Your task to perform on an android device: turn off priority inbox in the gmail app Image 0: 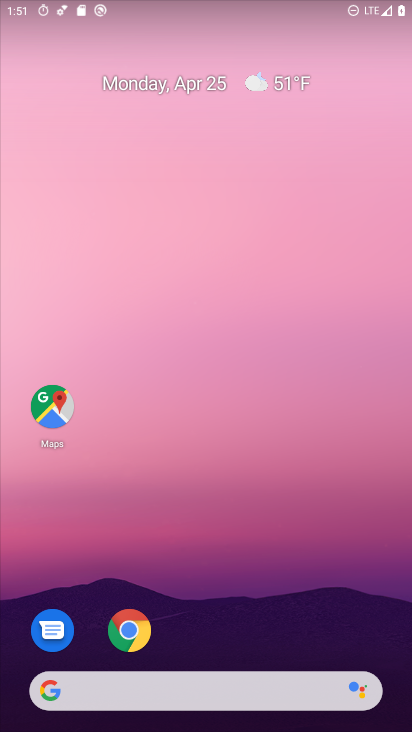
Step 0: drag from (187, 625) to (283, 57)
Your task to perform on an android device: turn off priority inbox in the gmail app Image 1: 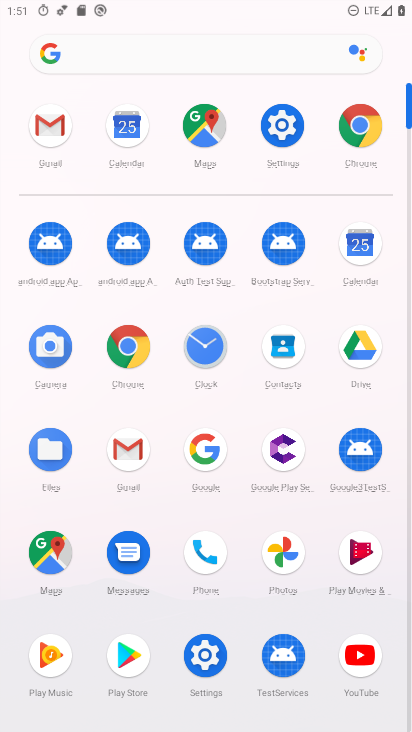
Step 1: drag from (239, 660) to (250, 307)
Your task to perform on an android device: turn off priority inbox in the gmail app Image 2: 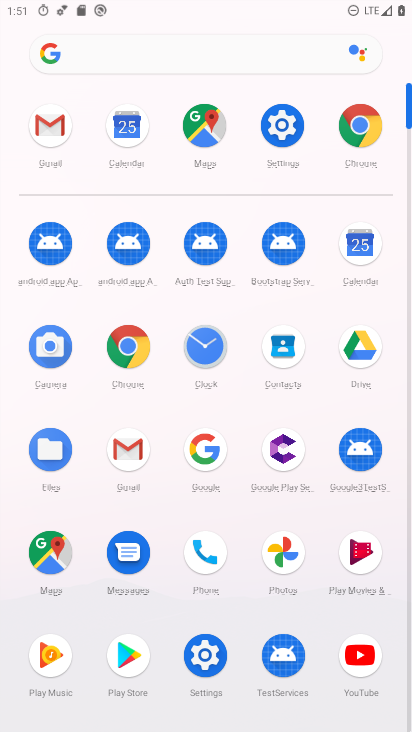
Step 2: click (127, 457)
Your task to perform on an android device: turn off priority inbox in the gmail app Image 3: 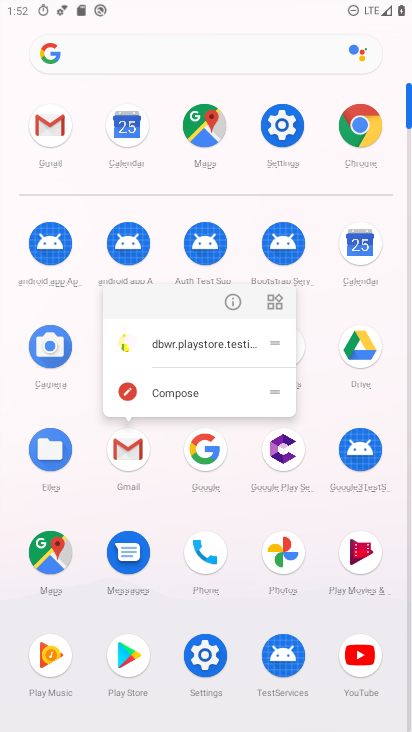
Step 3: click (230, 296)
Your task to perform on an android device: turn off priority inbox in the gmail app Image 4: 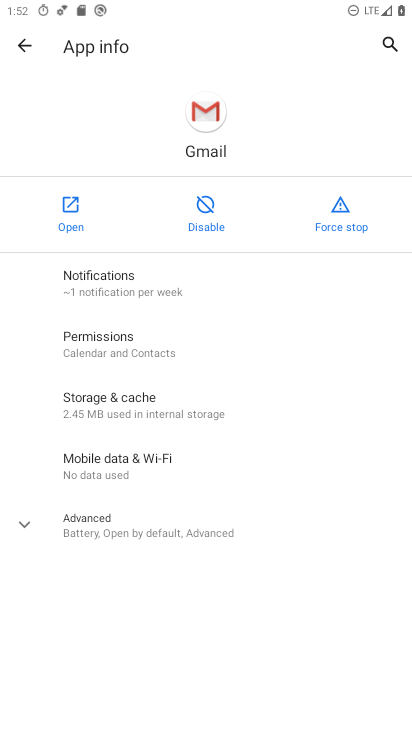
Step 4: click (56, 197)
Your task to perform on an android device: turn off priority inbox in the gmail app Image 5: 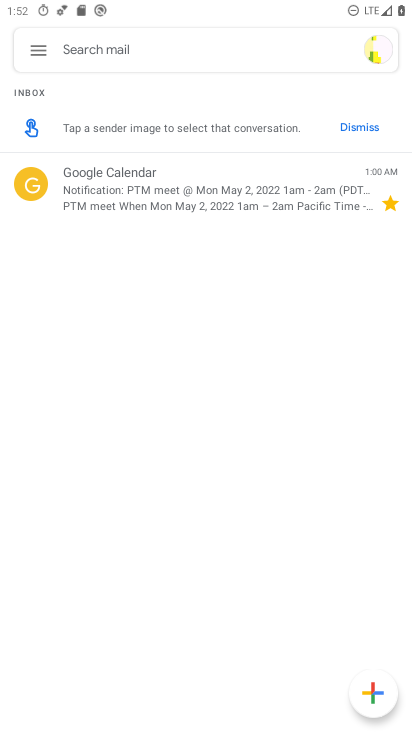
Step 5: drag from (209, 587) to (245, 149)
Your task to perform on an android device: turn off priority inbox in the gmail app Image 6: 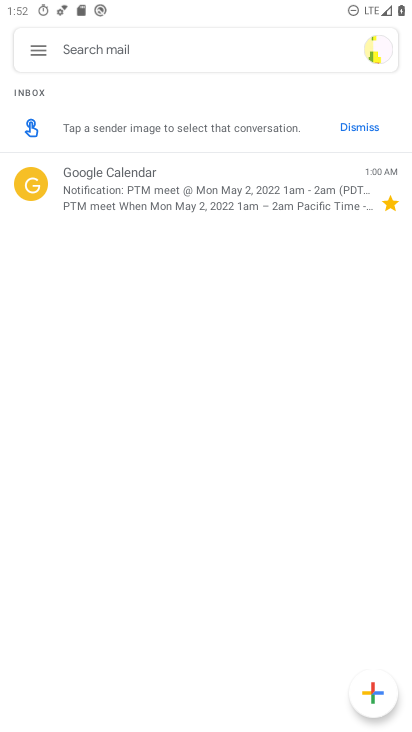
Step 6: click (29, 48)
Your task to perform on an android device: turn off priority inbox in the gmail app Image 7: 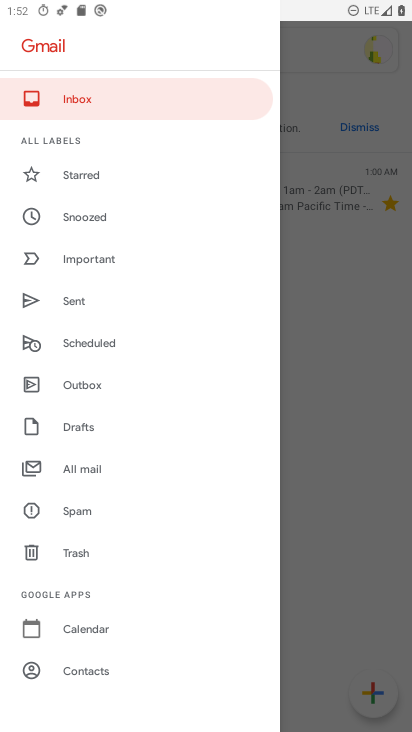
Step 7: click (190, 280)
Your task to perform on an android device: turn off priority inbox in the gmail app Image 8: 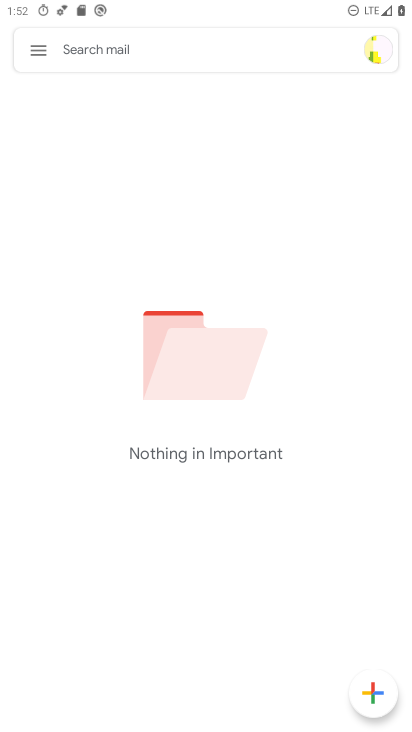
Step 8: drag from (223, 609) to (306, 259)
Your task to perform on an android device: turn off priority inbox in the gmail app Image 9: 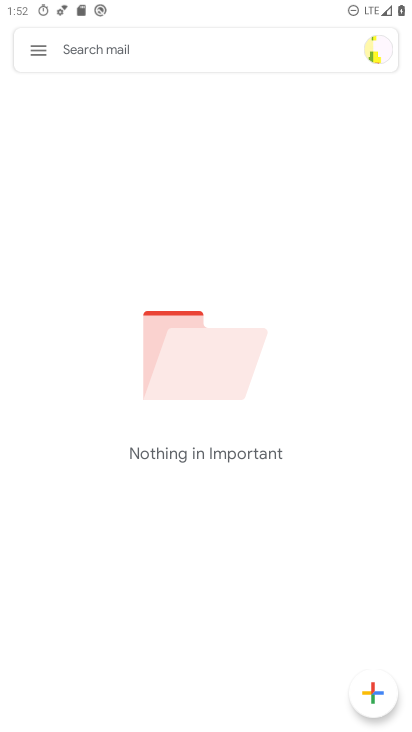
Step 9: click (20, 47)
Your task to perform on an android device: turn off priority inbox in the gmail app Image 10: 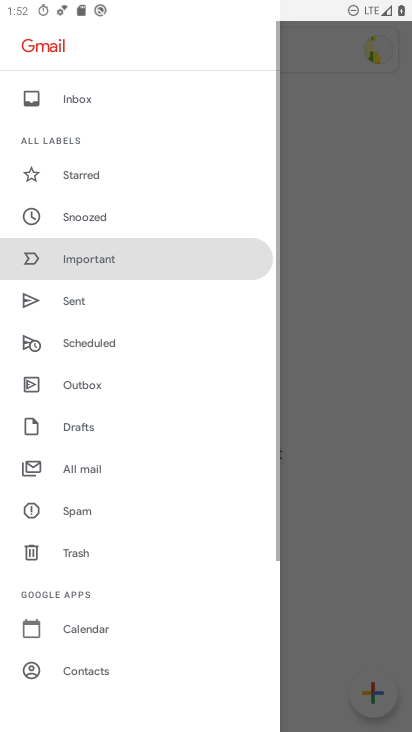
Step 10: click (174, 136)
Your task to perform on an android device: turn off priority inbox in the gmail app Image 11: 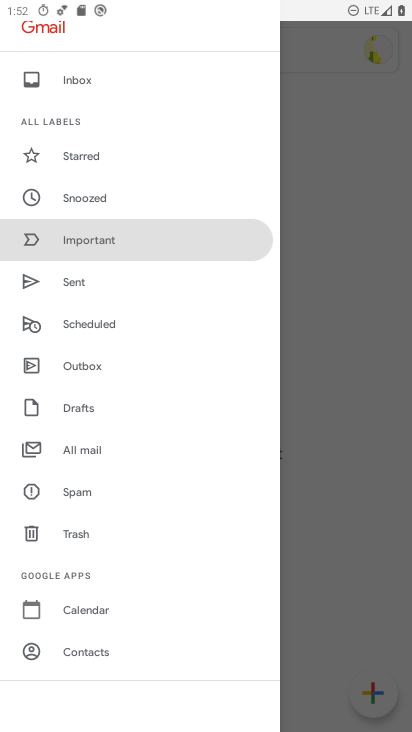
Step 11: drag from (133, 602) to (187, 197)
Your task to perform on an android device: turn off priority inbox in the gmail app Image 12: 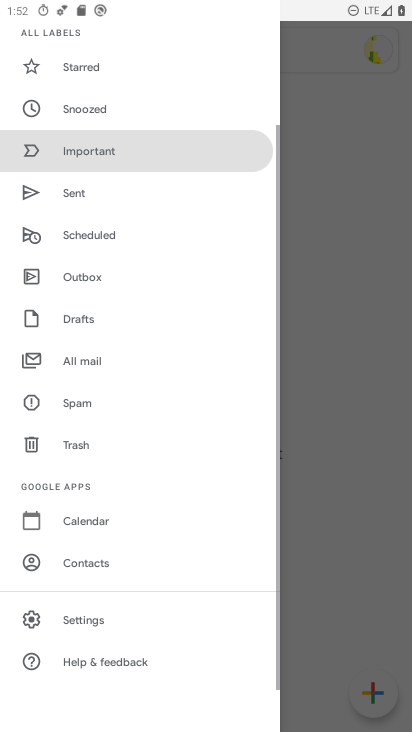
Step 12: click (85, 610)
Your task to perform on an android device: turn off priority inbox in the gmail app Image 13: 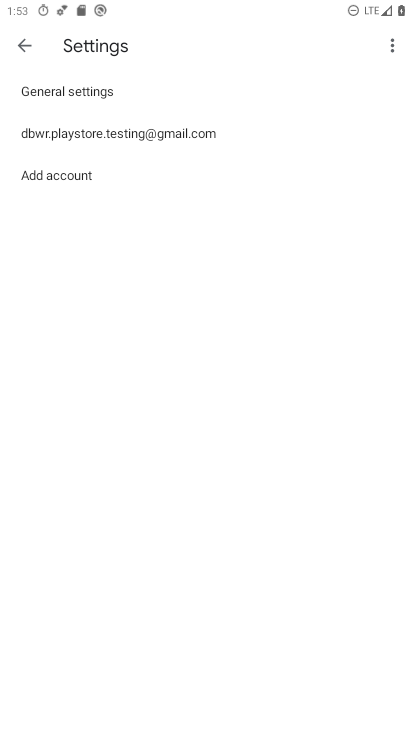
Step 13: click (155, 139)
Your task to perform on an android device: turn off priority inbox in the gmail app Image 14: 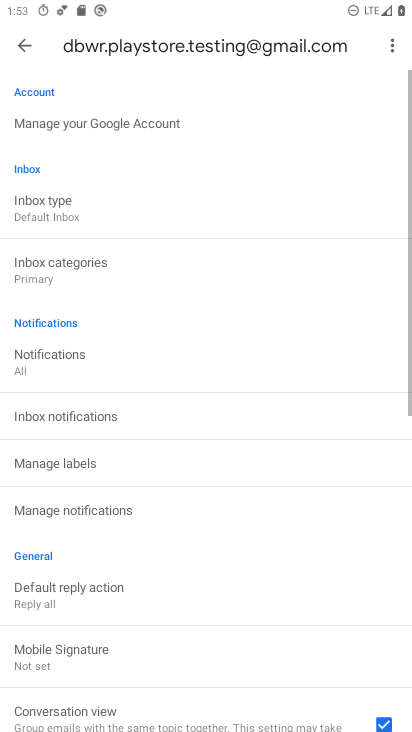
Step 14: drag from (157, 528) to (221, 182)
Your task to perform on an android device: turn off priority inbox in the gmail app Image 15: 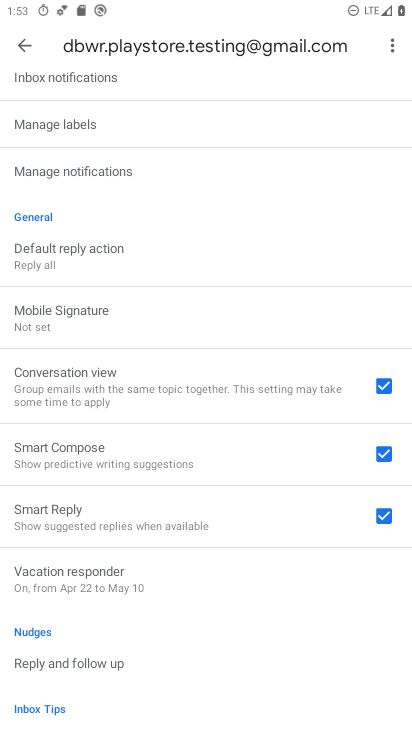
Step 15: drag from (130, 504) to (199, 209)
Your task to perform on an android device: turn off priority inbox in the gmail app Image 16: 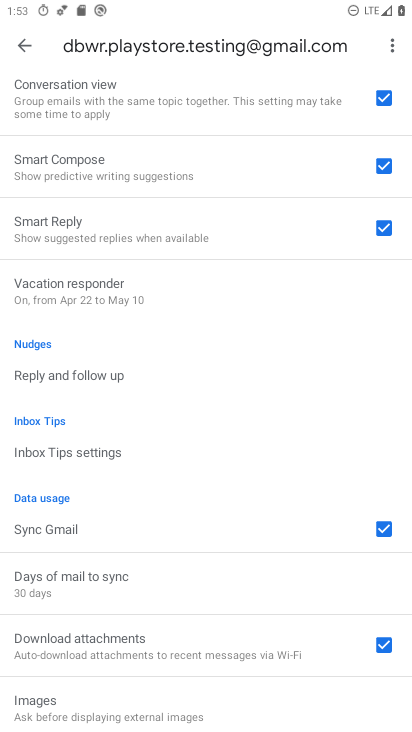
Step 16: drag from (160, 327) to (204, 639)
Your task to perform on an android device: turn off priority inbox in the gmail app Image 17: 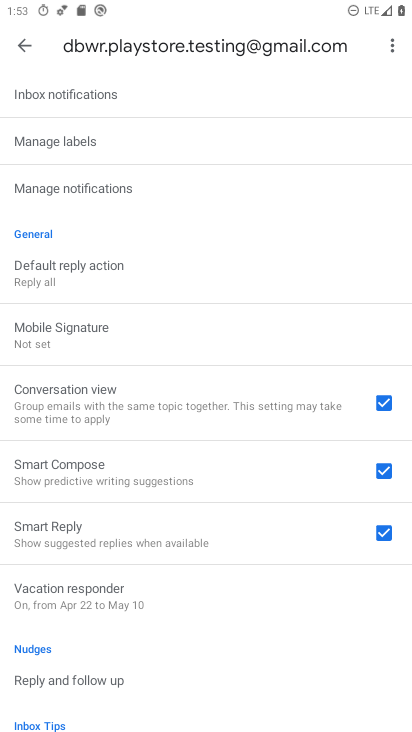
Step 17: drag from (157, 279) to (230, 641)
Your task to perform on an android device: turn off priority inbox in the gmail app Image 18: 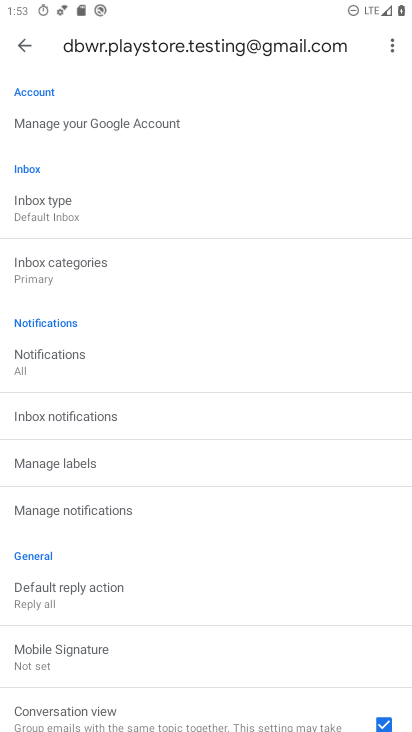
Step 18: click (128, 211)
Your task to perform on an android device: turn off priority inbox in the gmail app Image 19: 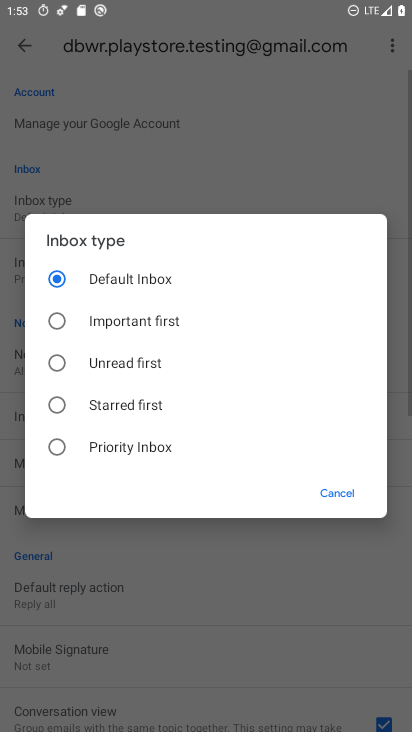
Step 19: click (142, 440)
Your task to perform on an android device: turn off priority inbox in the gmail app Image 20: 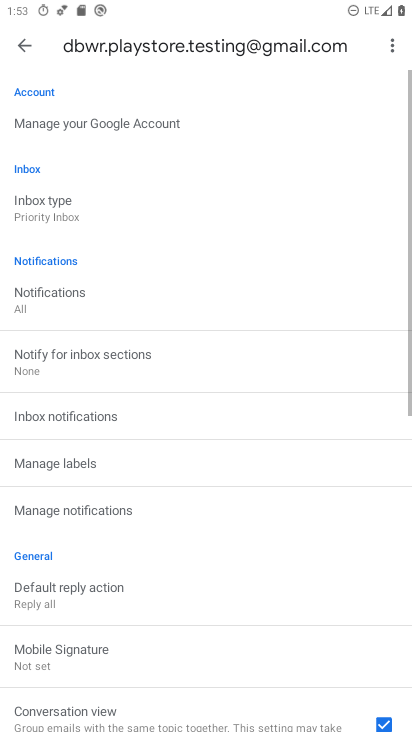
Step 20: task complete